Your task to perform on an android device: Open the Play Movies app and select the watchlist tab. Image 0: 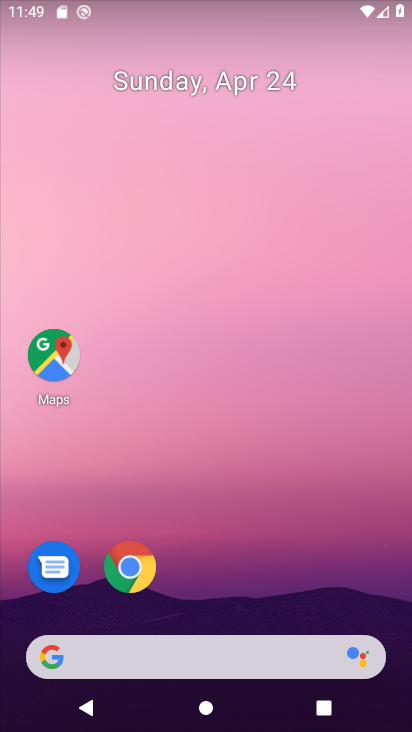
Step 0: drag from (328, 568) to (348, 43)
Your task to perform on an android device: Open the Play Movies app and select the watchlist tab. Image 1: 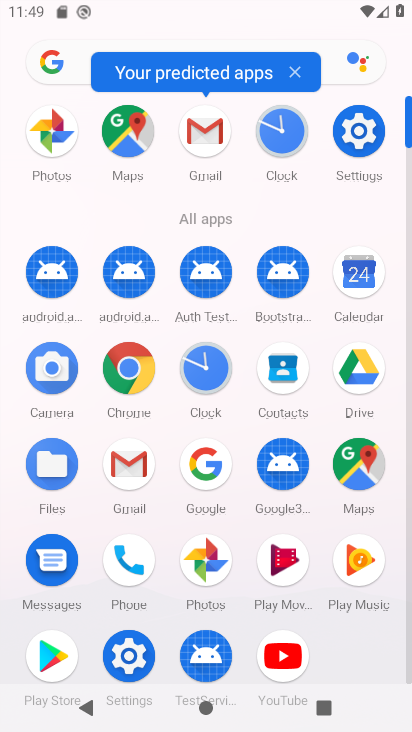
Step 1: click (289, 559)
Your task to perform on an android device: Open the Play Movies app and select the watchlist tab. Image 2: 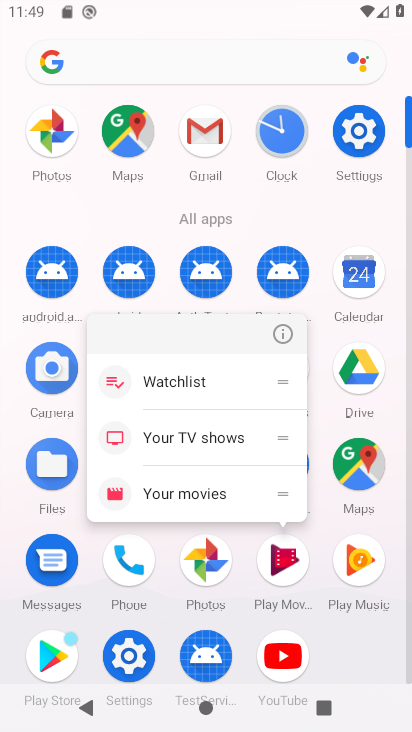
Step 2: click (289, 562)
Your task to perform on an android device: Open the Play Movies app and select the watchlist tab. Image 3: 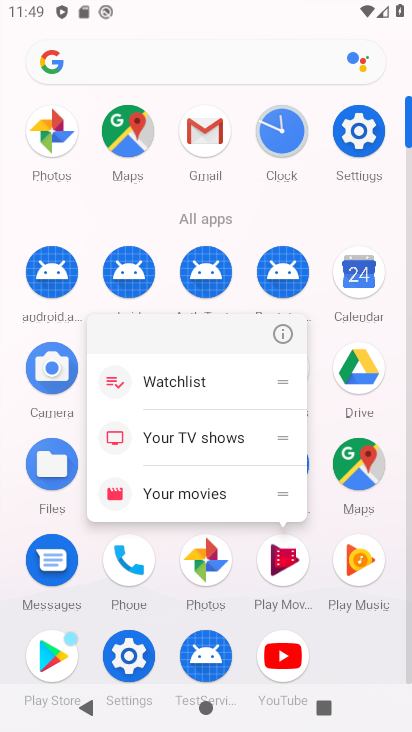
Step 3: click (289, 562)
Your task to perform on an android device: Open the Play Movies app and select the watchlist tab. Image 4: 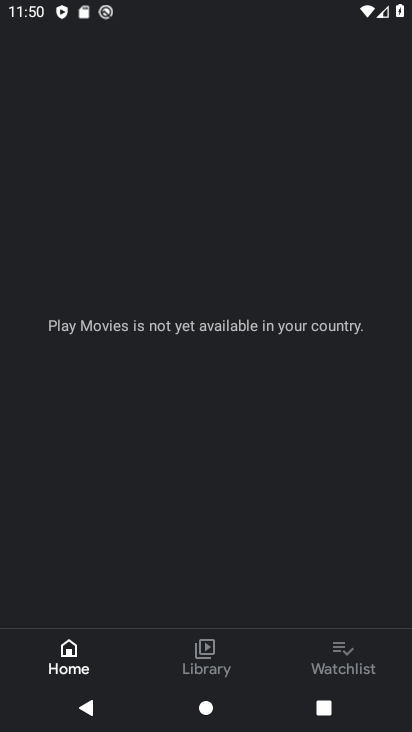
Step 4: click (369, 644)
Your task to perform on an android device: Open the Play Movies app and select the watchlist tab. Image 5: 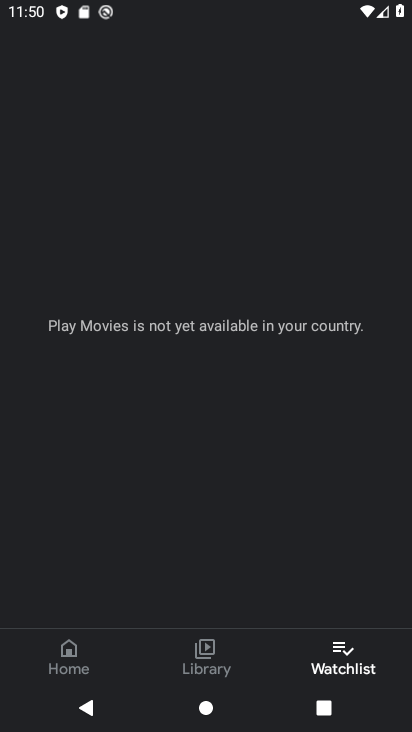
Step 5: task complete